Your task to perform on an android device: change the clock display to show seconds Image 0: 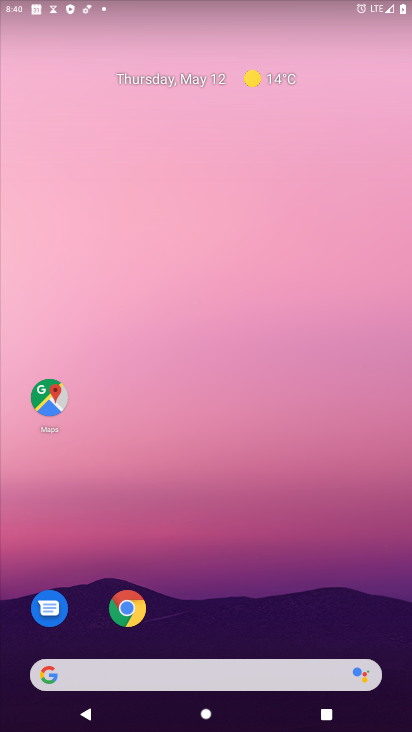
Step 0: drag from (213, 619) to (213, 302)
Your task to perform on an android device: change the clock display to show seconds Image 1: 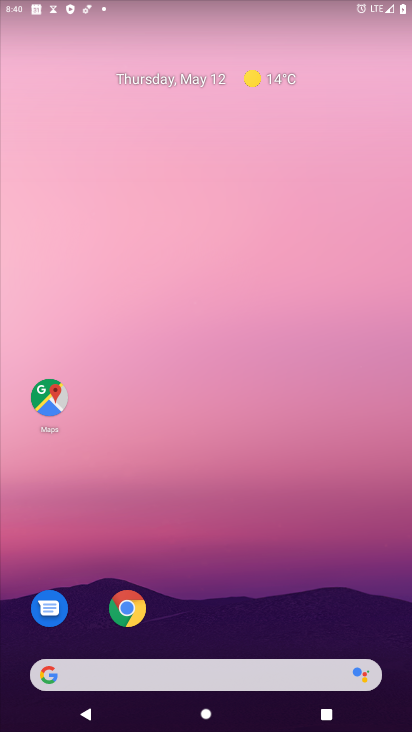
Step 1: drag from (206, 657) to (261, 292)
Your task to perform on an android device: change the clock display to show seconds Image 2: 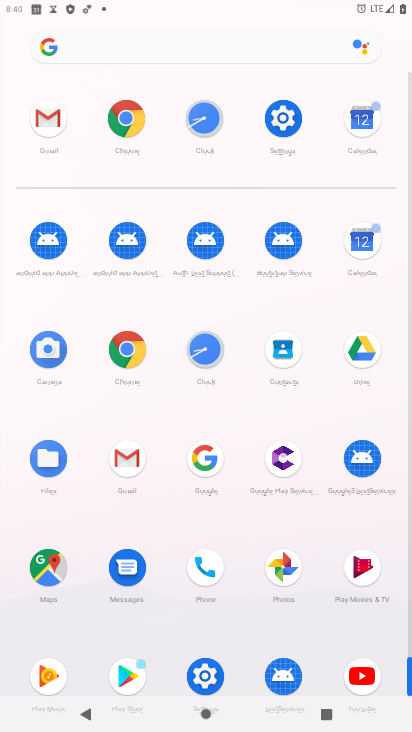
Step 2: click (204, 361)
Your task to perform on an android device: change the clock display to show seconds Image 3: 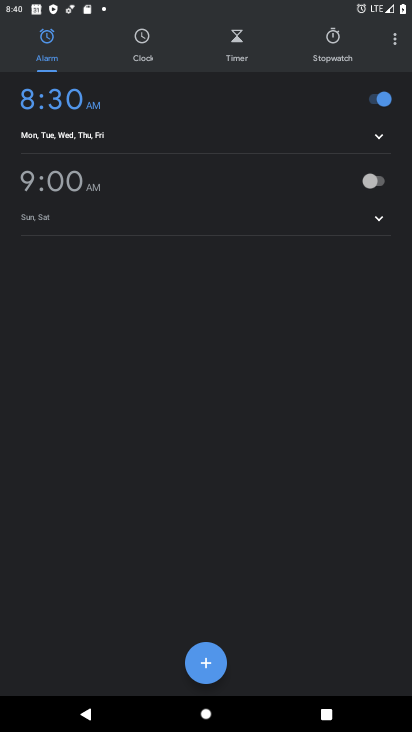
Step 3: click (395, 43)
Your task to perform on an android device: change the clock display to show seconds Image 4: 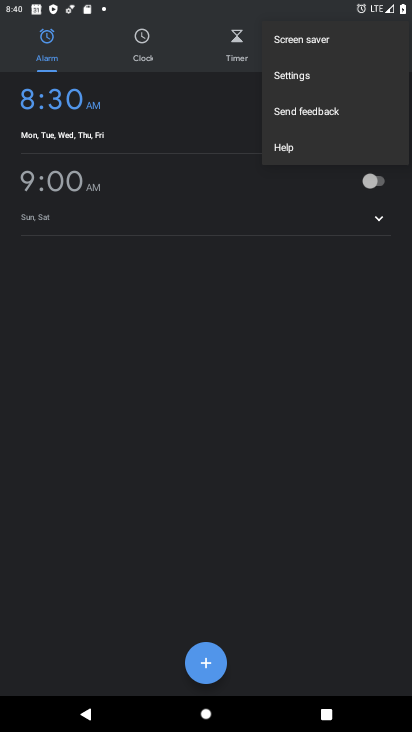
Step 4: click (297, 70)
Your task to perform on an android device: change the clock display to show seconds Image 5: 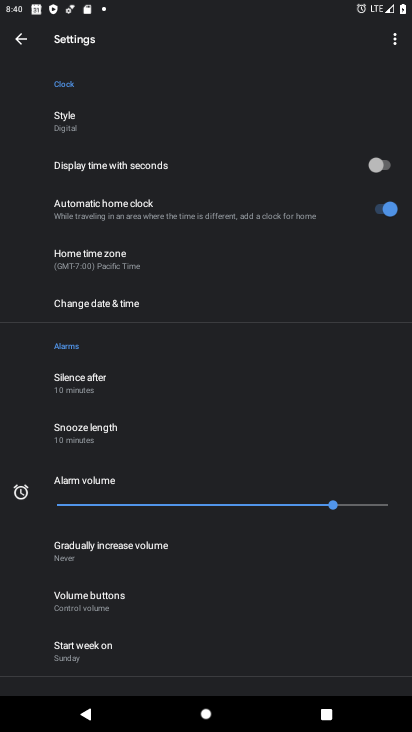
Step 5: click (385, 167)
Your task to perform on an android device: change the clock display to show seconds Image 6: 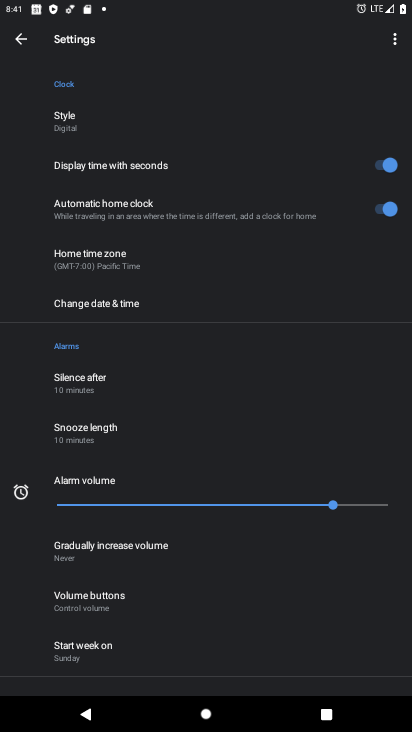
Step 6: task complete